Your task to perform on an android device: Go to display settings Image 0: 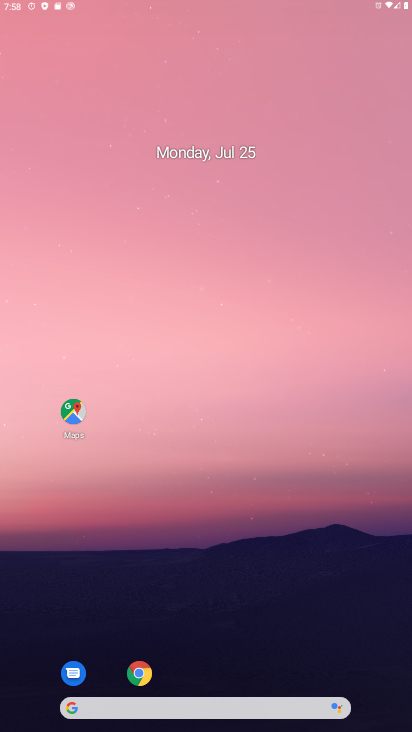
Step 0: drag from (299, 673) to (128, 0)
Your task to perform on an android device: Go to display settings Image 1: 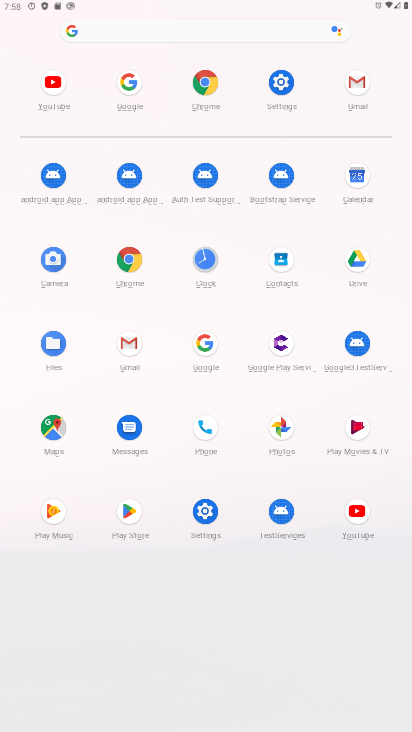
Step 1: click (191, 525)
Your task to perform on an android device: Go to display settings Image 2: 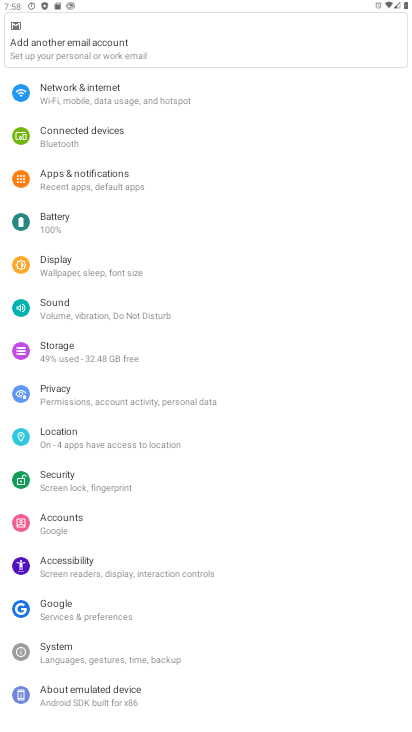
Step 2: click (69, 266)
Your task to perform on an android device: Go to display settings Image 3: 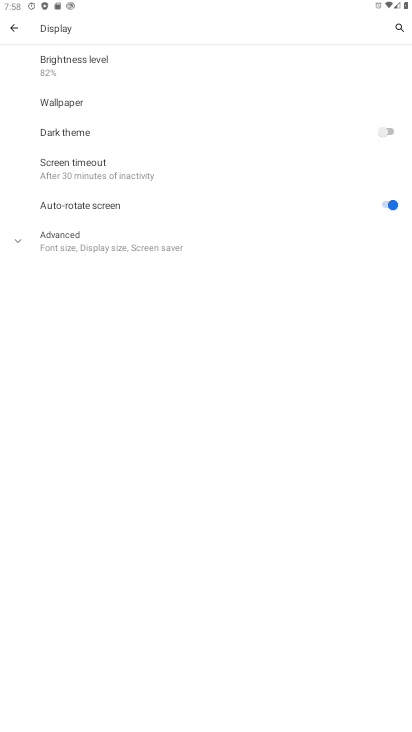
Step 3: task complete